Your task to perform on an android device: Open Android settings Image 0: 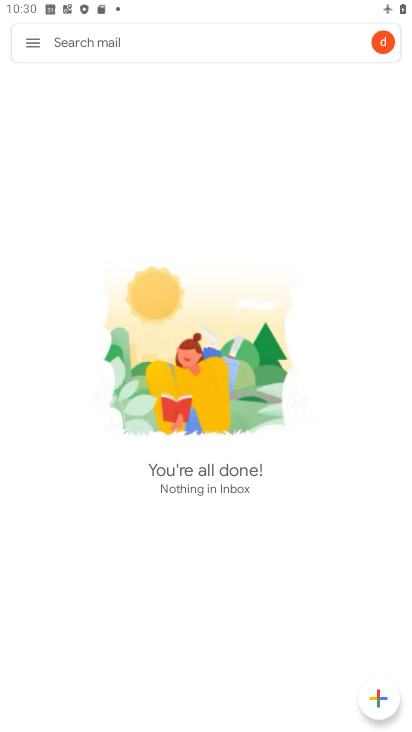
Step 0: press home button
Your task to perform on an android device: Open Android settings Image 1: 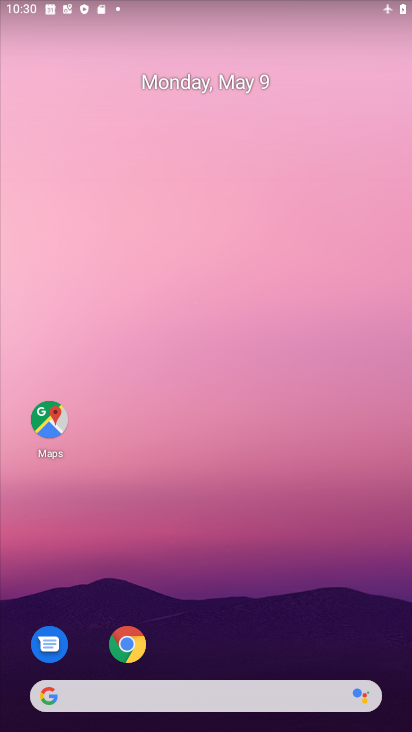
Step 1: drag from (242, 623) to (358, 34)
Your task to perform on an android device: Open Android settings Image 2: 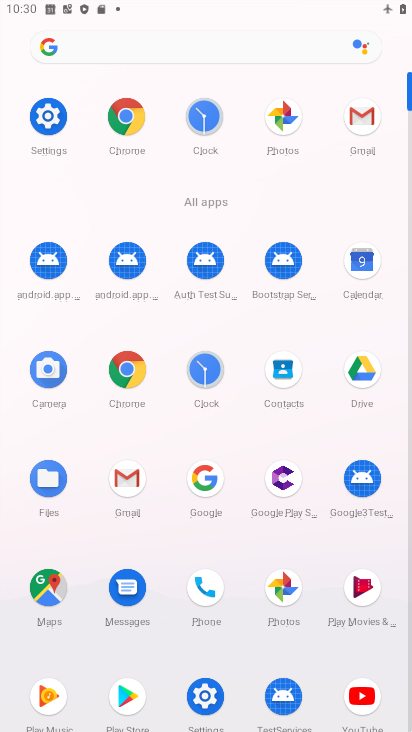
Step 2: click (51, 127)
Your task to perform on an android device: Open Android settings Image 3: 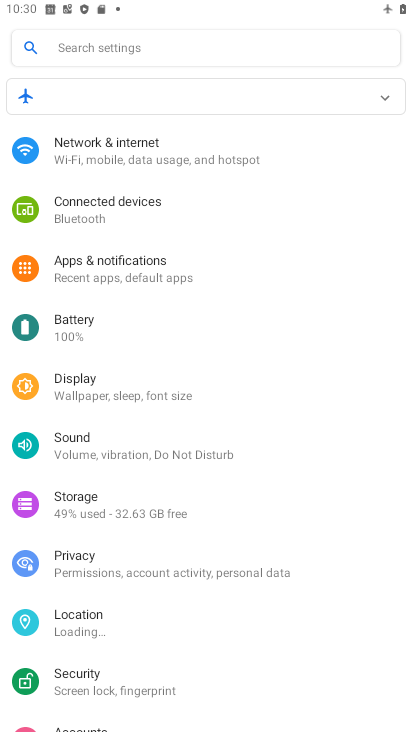
Step 3: drag from (163, 673) to (228, 235)
Your task to perform on an android device: Open Android settings Image 4: 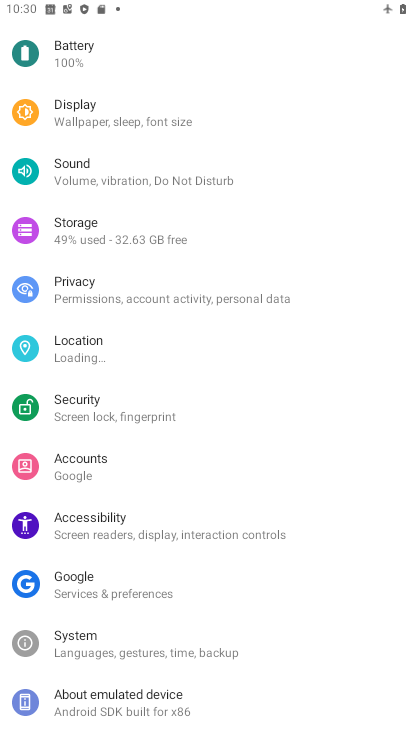
Step 4: click (111, 720)
Your task to perform on an android device: Open Android settings Image 5: 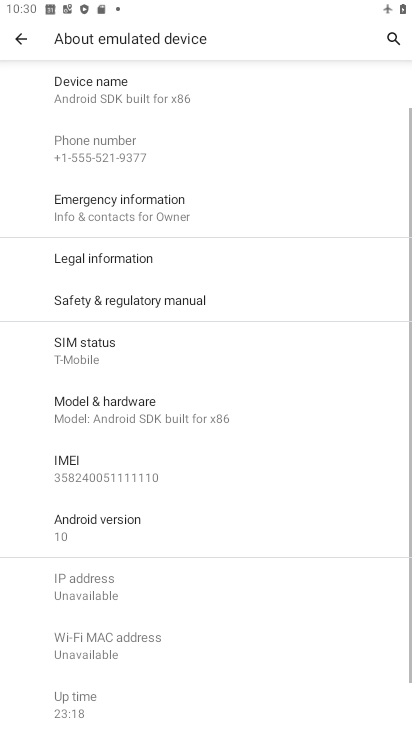
Step 5: click (114, 534)
Your task to perform on an android device: Open Android settings Image 6: 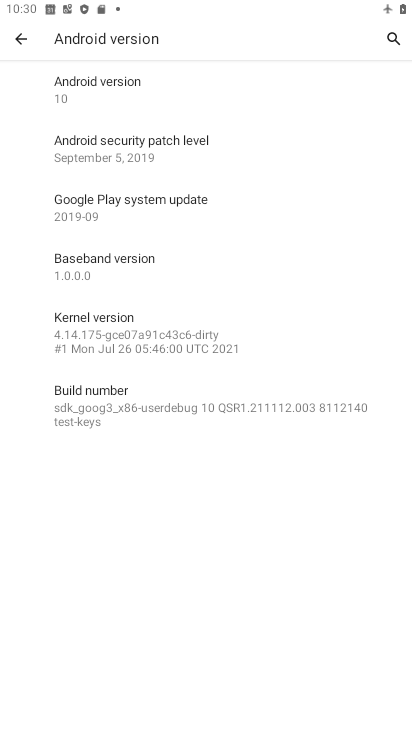
Step 6: task complete